Your task to perform on an android device: Show me recent news Image 0: 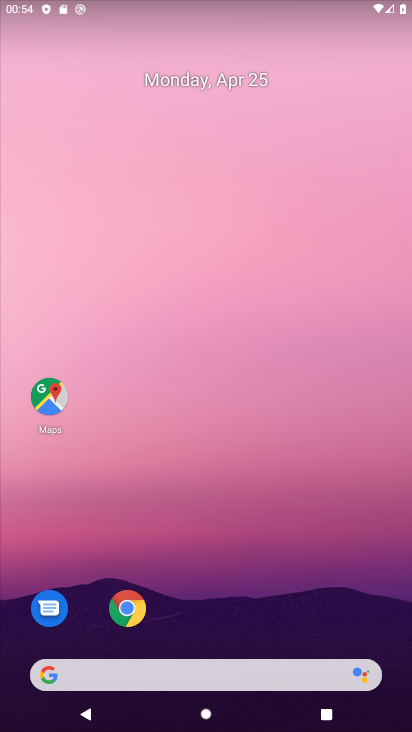
Step 0: click (138, 618)
Your task to perform on an android device: Show me recent news Image 1: 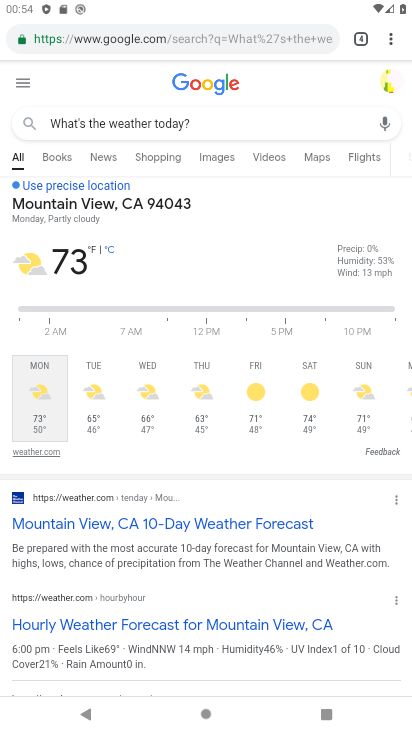
Step 1: click (191, 125)
Your task to perform on an android device: Show me recent news Image 2: 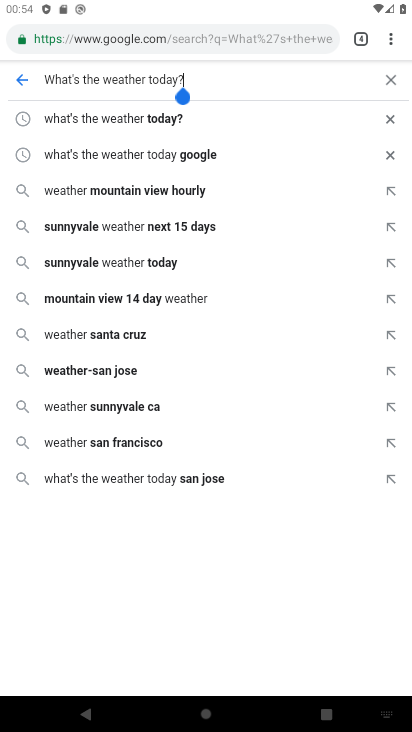
Step 2: click (389, 75)
Your task to perform on an android device: Show me recent news Image 3: 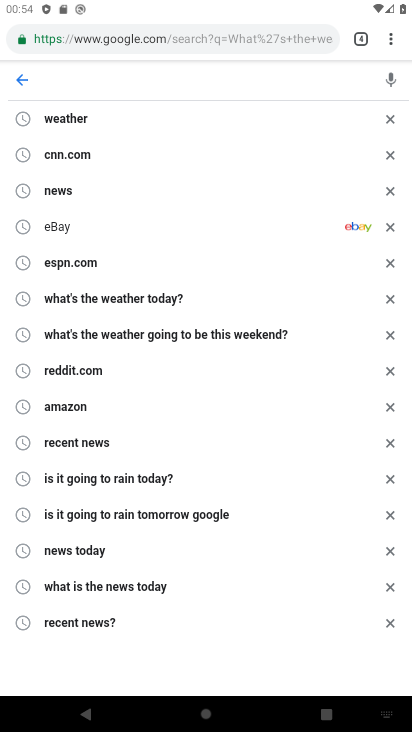
Step 3: click (75, 440)
Your task to perform on an android device: Show me recent news Image 4: 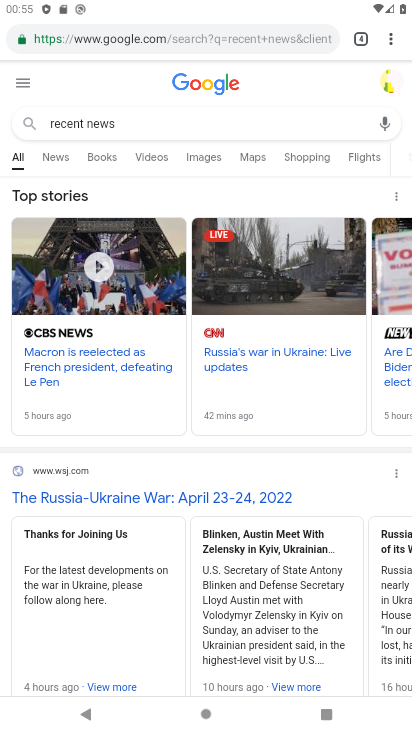
Step 4: task complete